Your task to perform on an android device: turn off picture-in-picture Image 0: 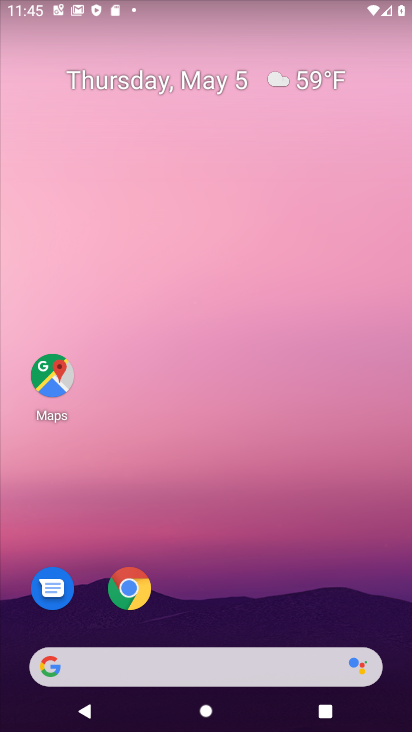
Step 0: click (133, 579)
Your task to perform on an android device: turn off picture-in-picture Image 1: 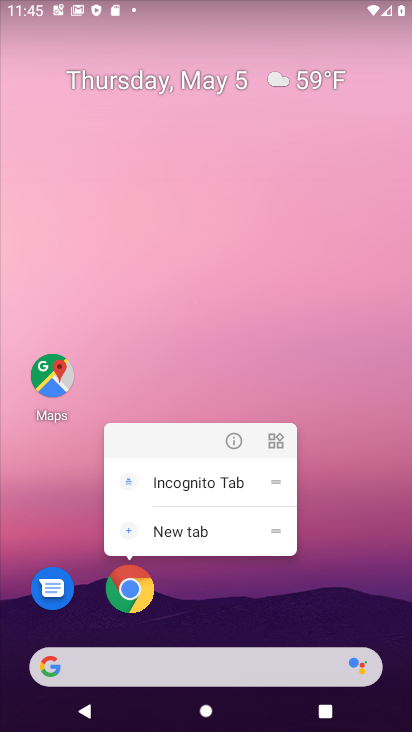
Step 1: click (238, 443)
Your task to perform on an android device: turn off picture-in-picture Image 2: 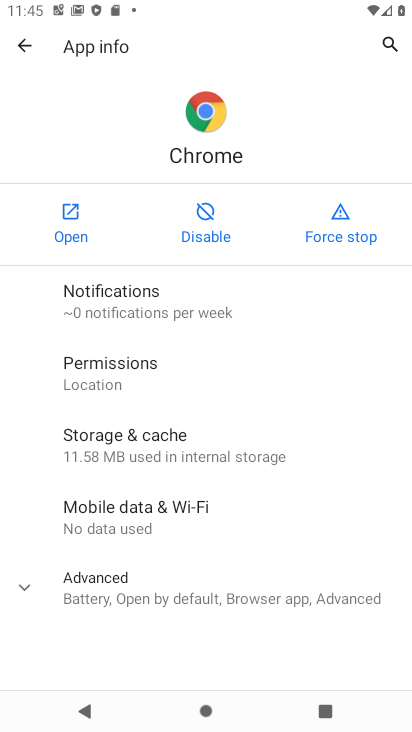
Step 2: drag from (194, 568) to (331, 149)
Your task to perform on an android device: turn off picture-in-picture Image 3: 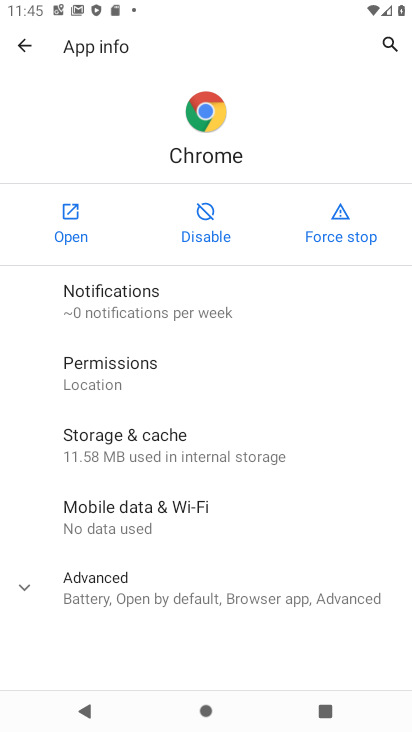
Step 3: click (94, 579)
Your task to perform on an android device: turn off picture-in-picture Image 4: 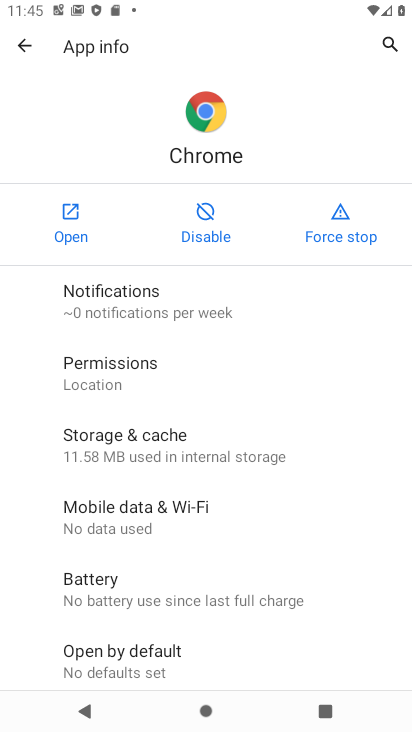
Step 4: drag from (113, 617) to (314, 271)
Your task to perform on an android device: turn off picture-in-picture Image 5: 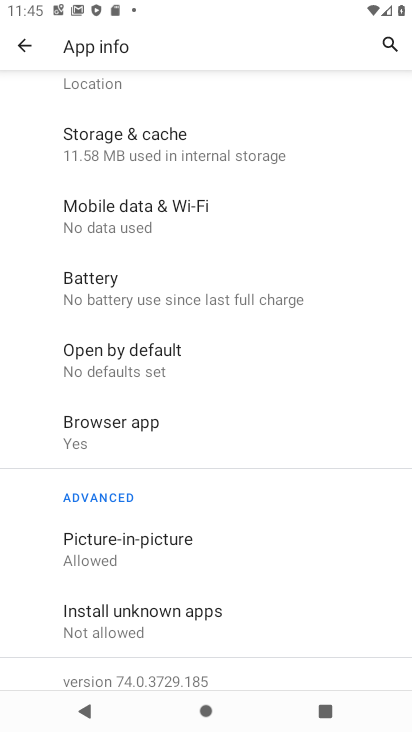
Step 5: click (162, 547)
Your task to perform on an android device: turn off picture-in-picture Image 6: 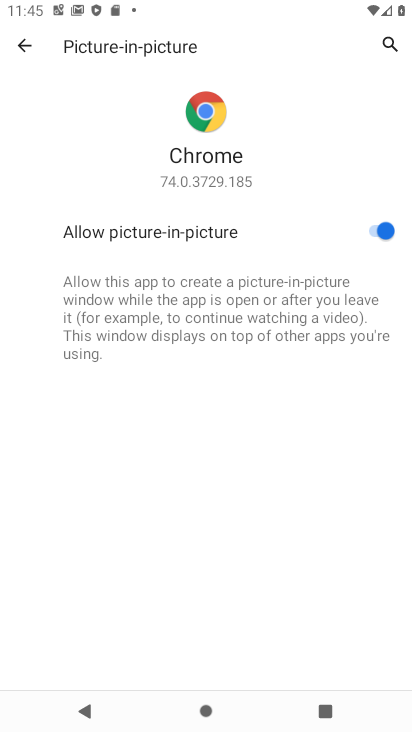
Step 6: click (377, 231)
Your task to perform on an android device: turn off picture-in-picture Image 7: 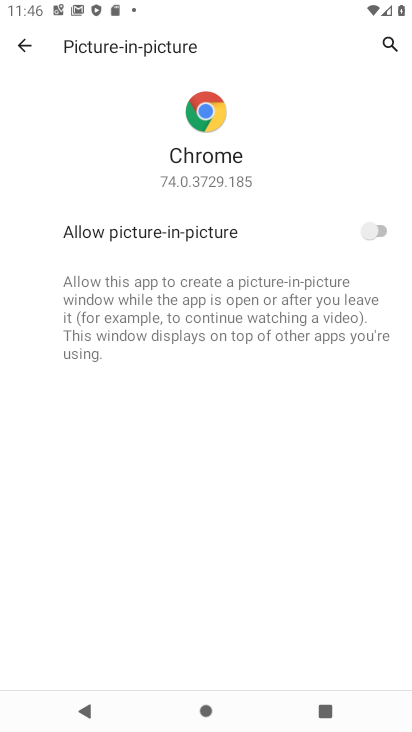
Step 7: task complete